Your task to perform on an android device: turn on wifi Image 0: 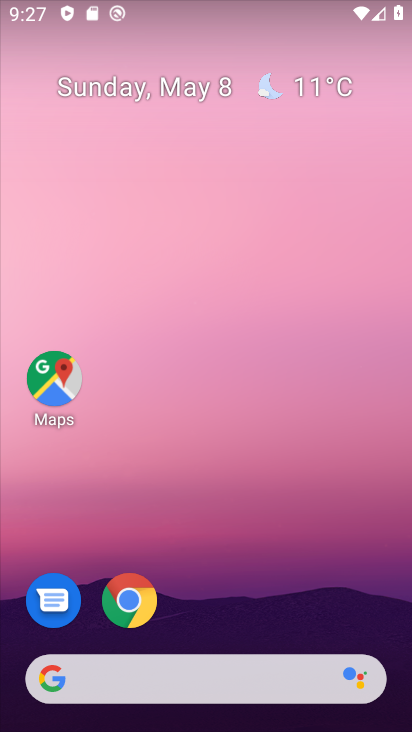
Step 0: drag from (266, 598) to (253, 39)
Your task to perform on an android device: turn on wifi Image 1: 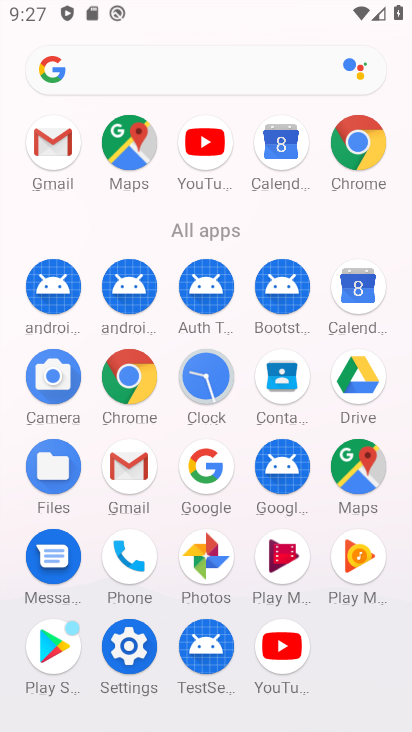
Step 1: drag from (7, 569) to (17, 239)
Your task to perform on an android device: turn on wifi Image 2: 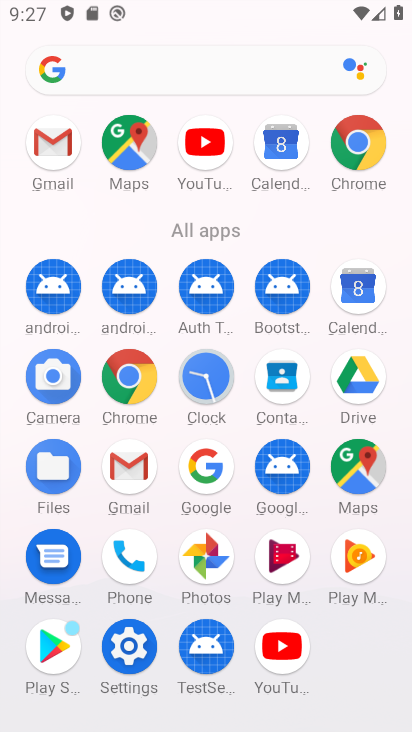
Step 2: click (132, 641)
Your task to perform on an android device: turn on wifi Image 3: 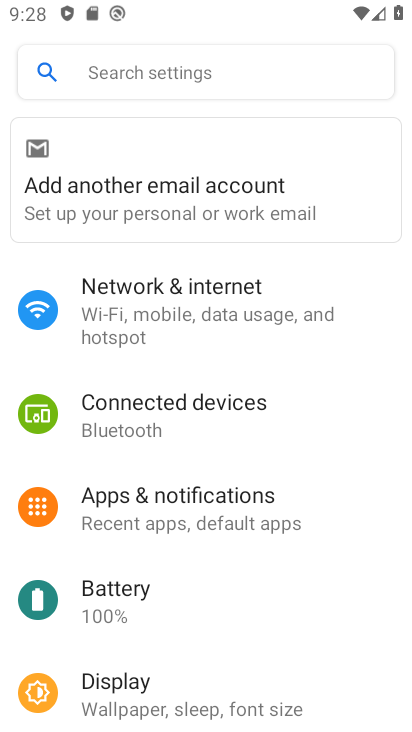
Step 3: click (220, 334)
Your task to perform on an android device: turn on wifi Image 4: 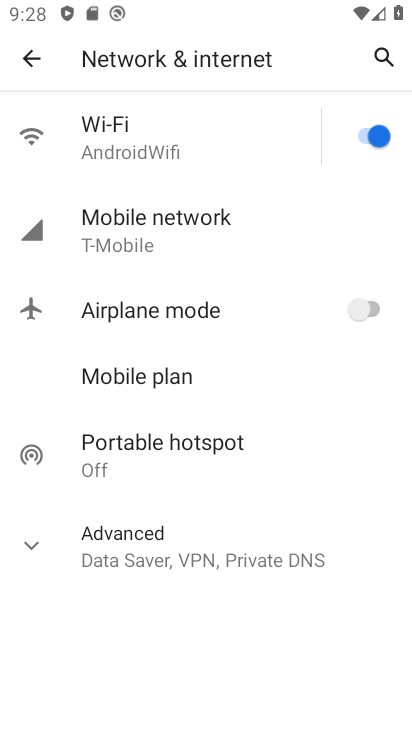
Step 4: task complete